Your task to perform on an android device: Check the news Image 0: 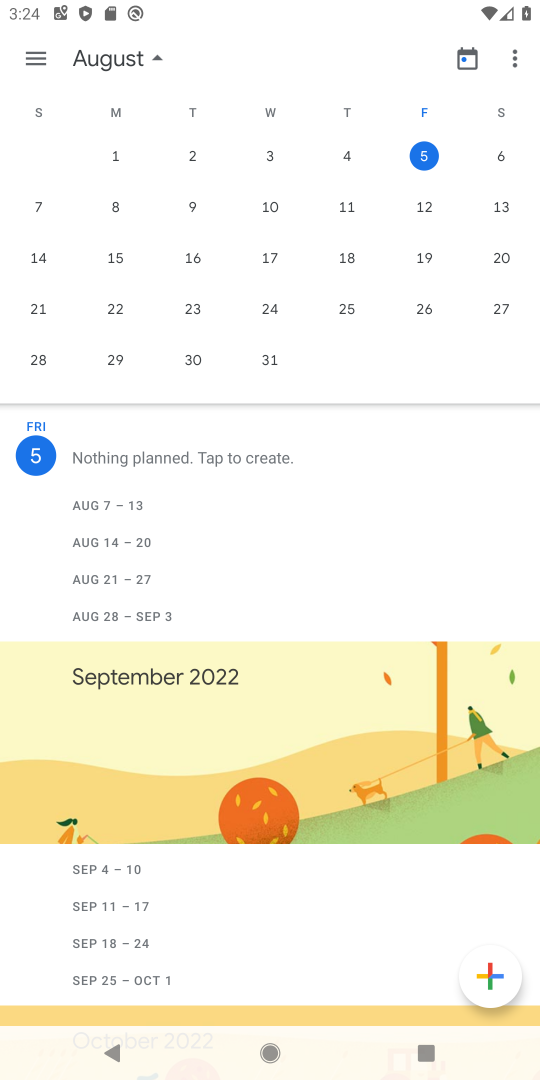
Step 0: press home button
Your task to perform on an android device: Check the news Image 1: 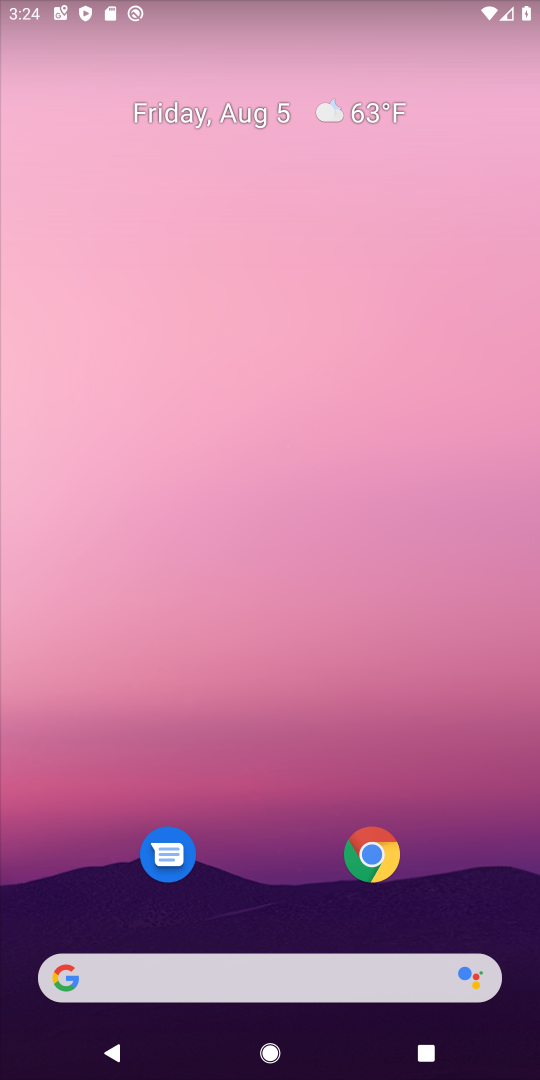
Step 1: drag from (41, 1028) to (262, 606)
Your task to perform on an android device: Check the news Image 2: 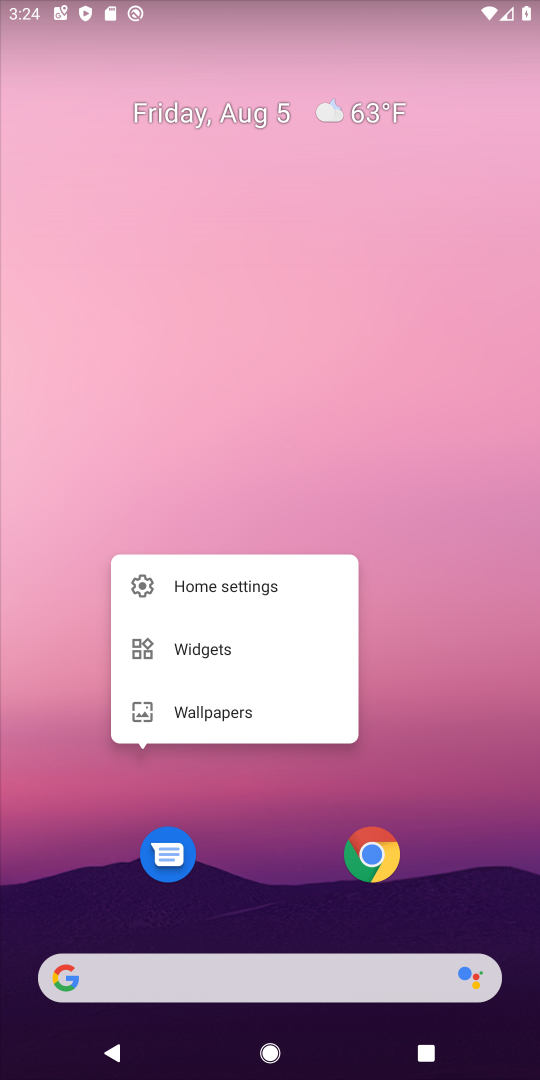
Step 2: click (114, 981)
Your task to perform on an android device: Check the news Image 3: 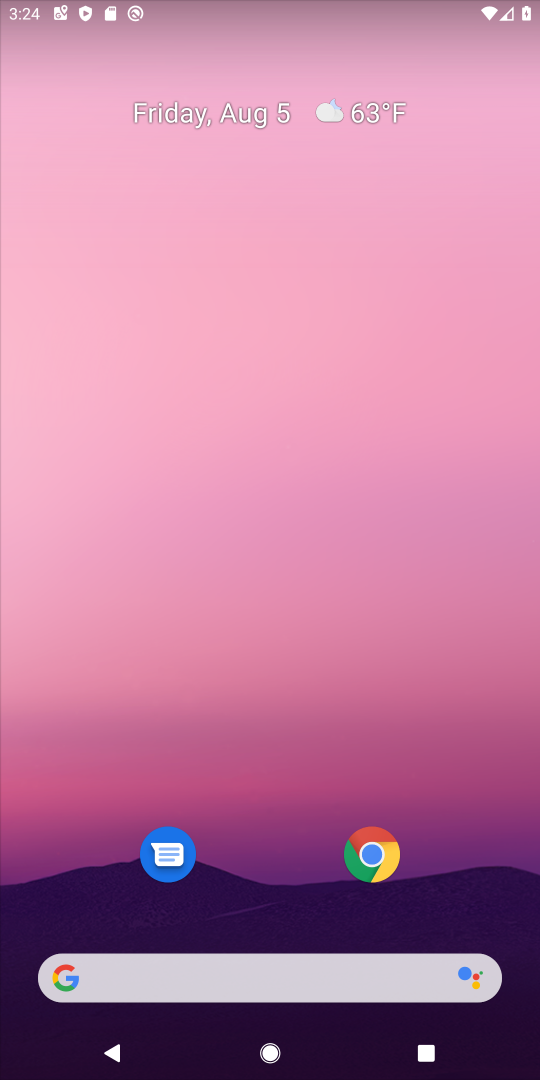
Step 3: click (154, 968)
Your task to perform on an android device: Check the news Image 4: 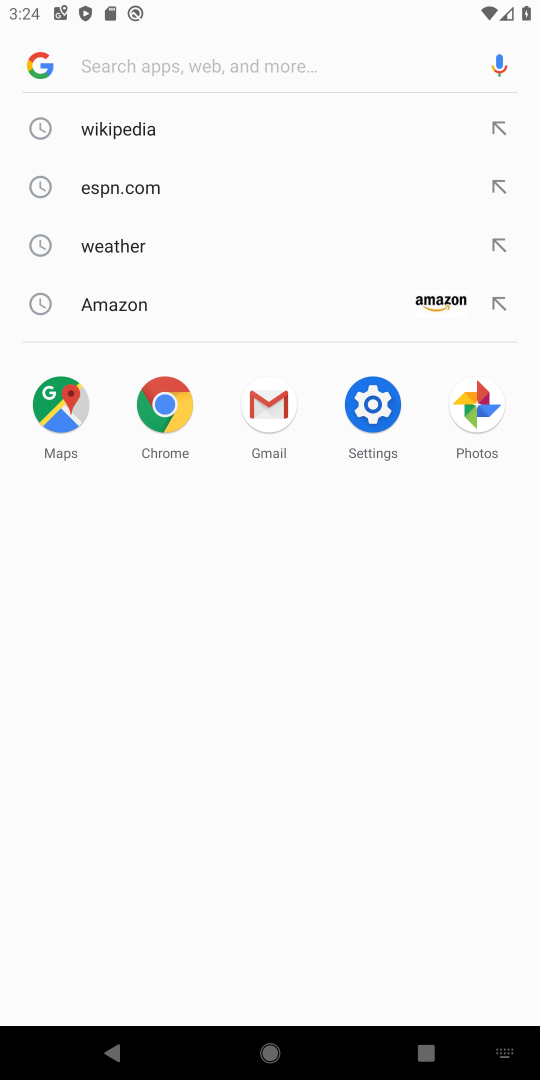
Step 4: type "Check the news"
Your task to perform on an android device: Check the news Image 5: 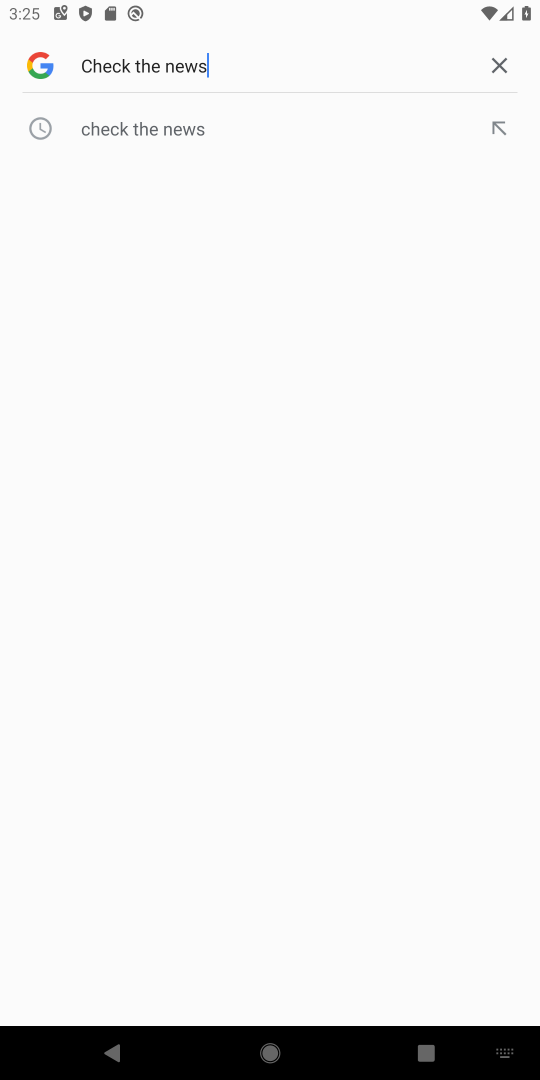
Step 5: click (167, 133)
Your task to perform on an android device: Check the news Image 6: 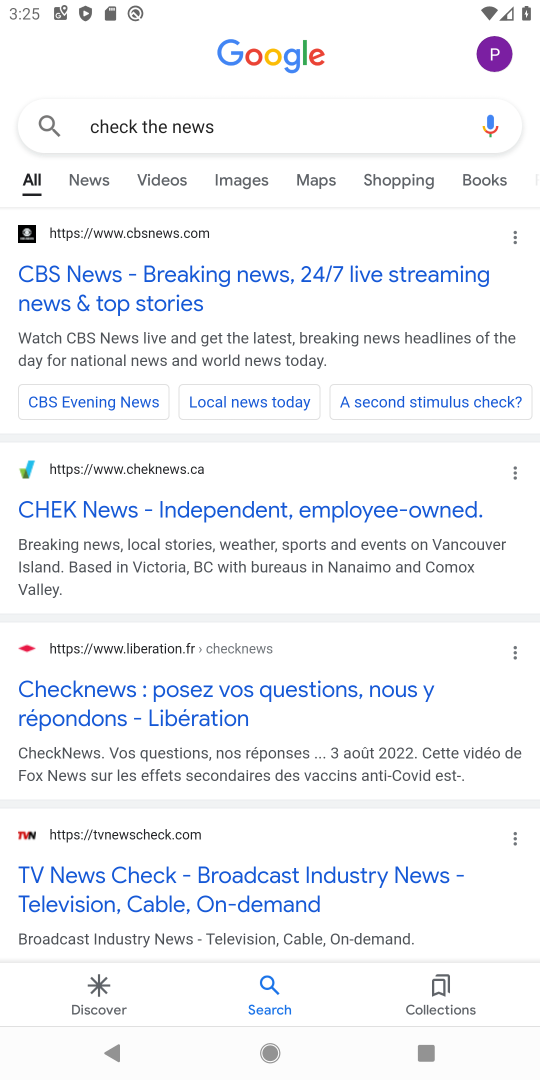
Step 6: task complete